Your task to perform on an android device: Open CNN.com Image 0: 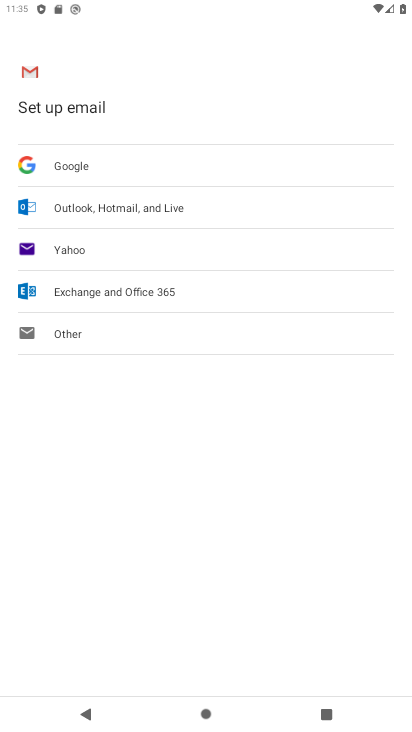
Step 0: press home button
Your task to perform on an android device: Open CNN.com Image 1: 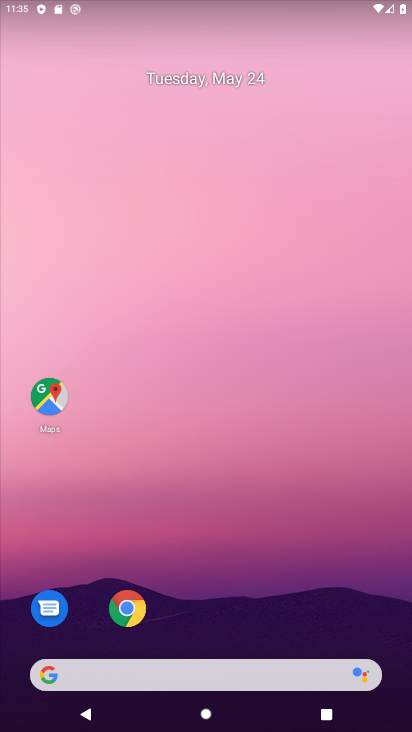
Step 1: click (178, 674)
Your task to perform on an android device: Open CNN.com Image 2: 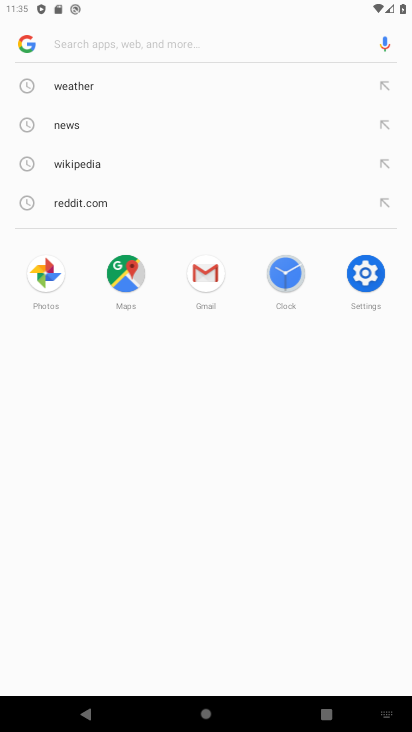
Step 2: type "CNN.com"
Your task to perform on an android device: Open CNN.com Image 3: 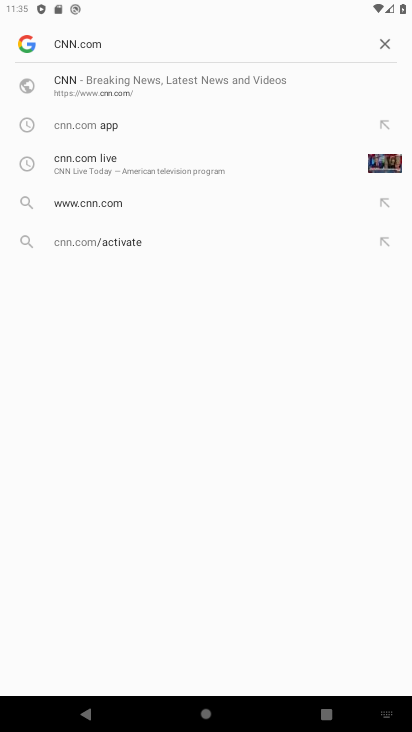
Step 3: click (165, 88)
Your task to perform on an android device: Open CNN.com Image 4: 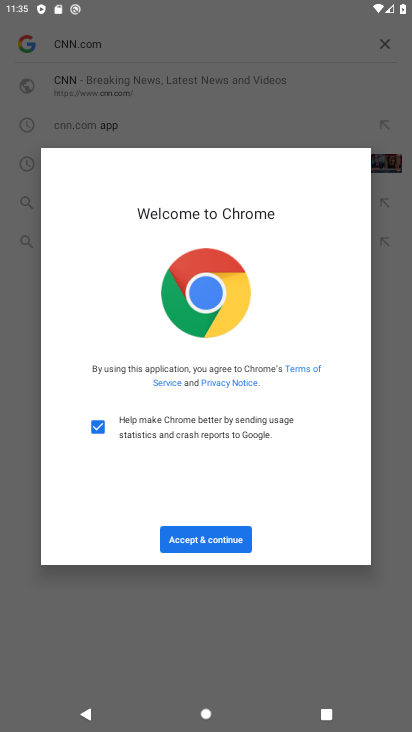
Step 4: click (187, 536)
Your task to perform on an android device: Open CNN.com Image 5: 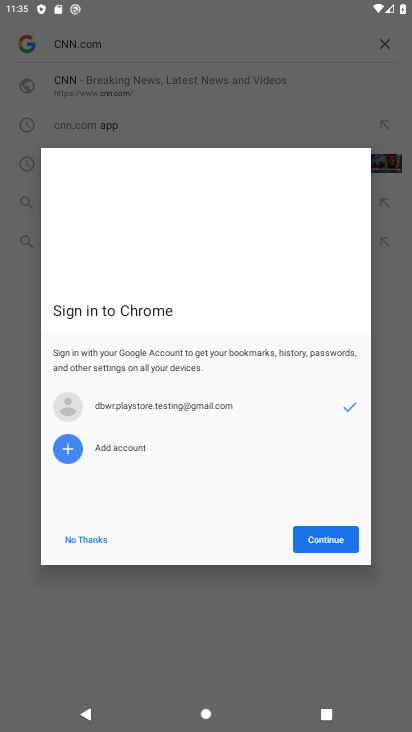
Step 5: click (341, 548)
Your task to perform on an android device: Open CNN.com Image 6: 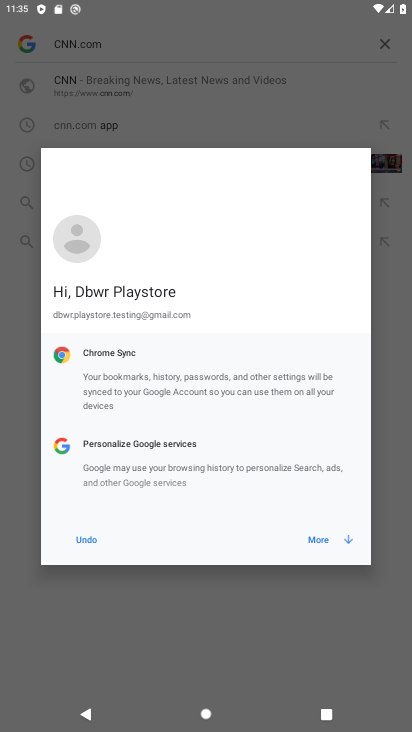
Step 6: click (341, 546)
Your task to perform on an android device: Open CNN.com Image 7: 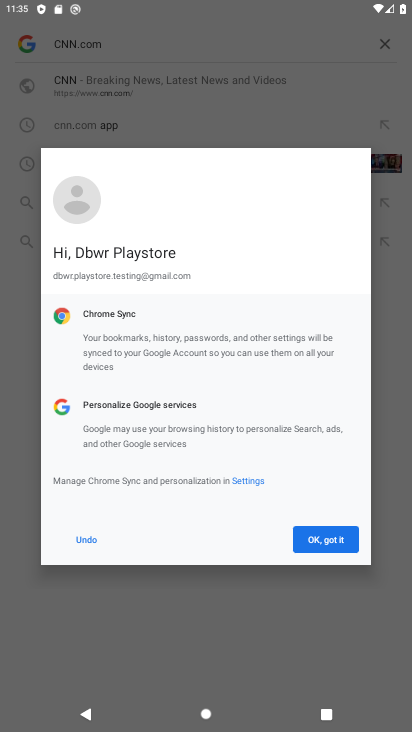
Step 7: click (341, 545)
Your task to perform on an android device: Open CNN.com Image 8: 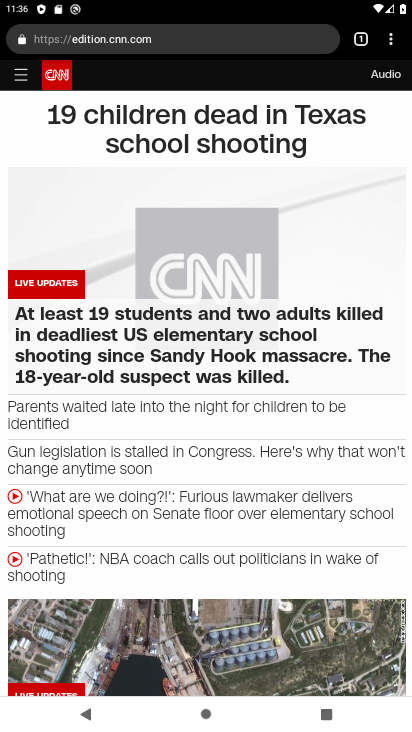
Step 8: task complete